Your task to perform on an android device: uninstall "Google Photos" Image 0: 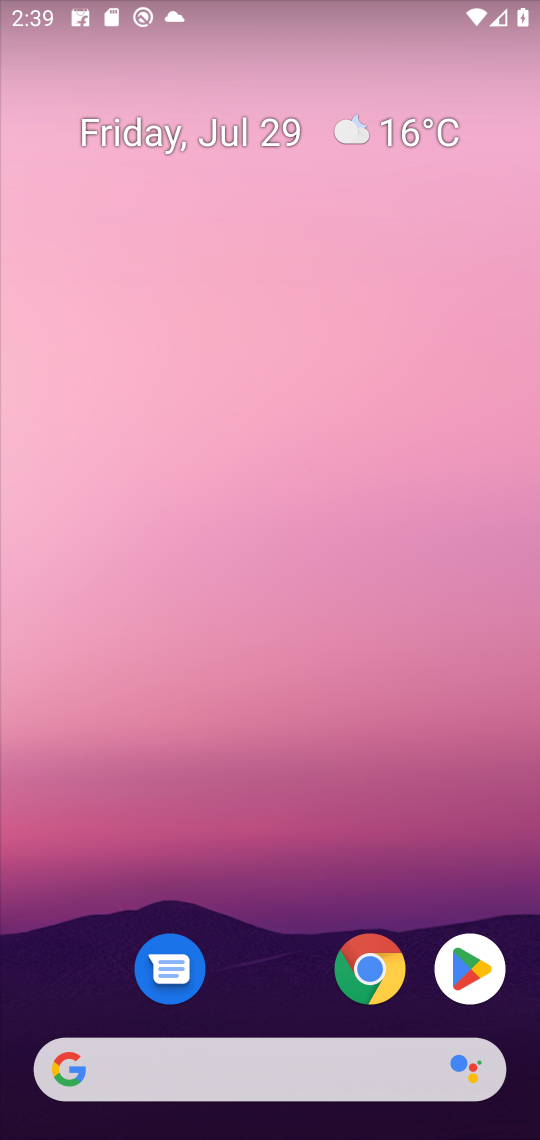
Step 0: press home button
Your task to perform on an android device: uninstall "Google Photos" Image 1: 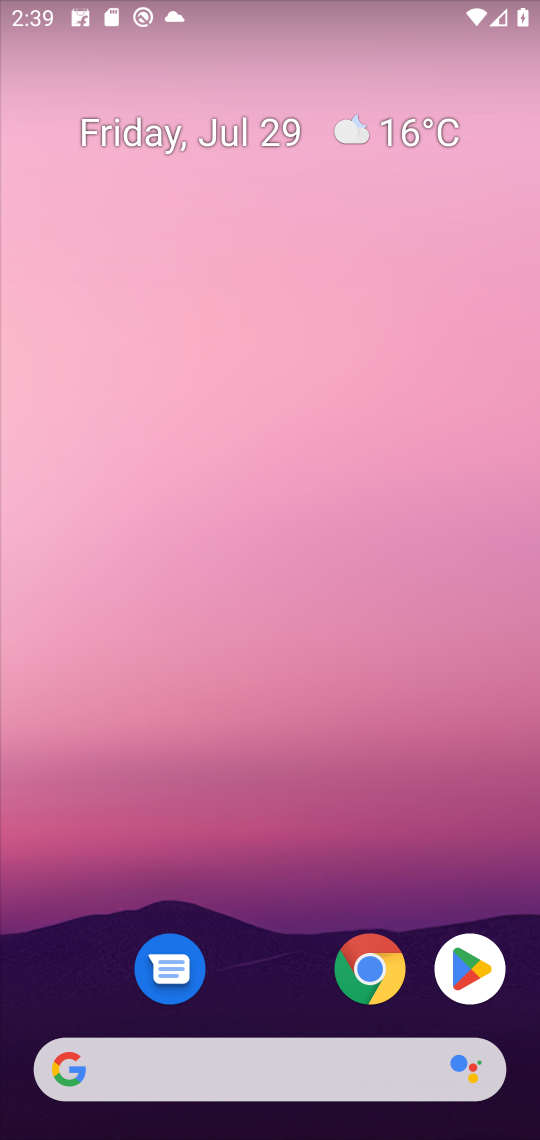
Step 1: click (468, 976)
Your task to perform on an android device: uninstall "Google Photos" Image 2: 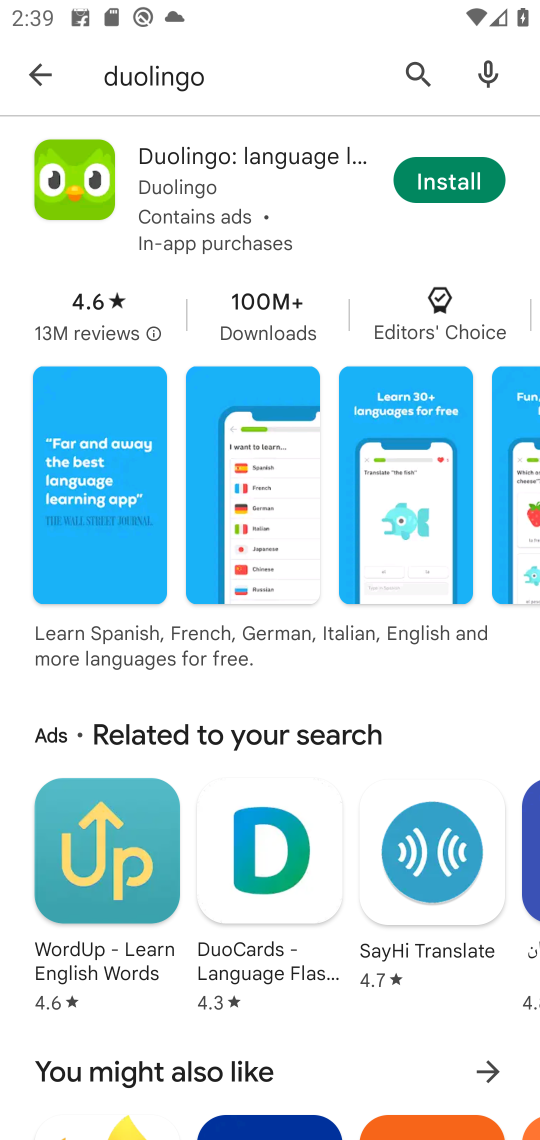
Step 2: click (403, 61)
Your task to perform on an android device: uninstall "Google Photos" Image 3: 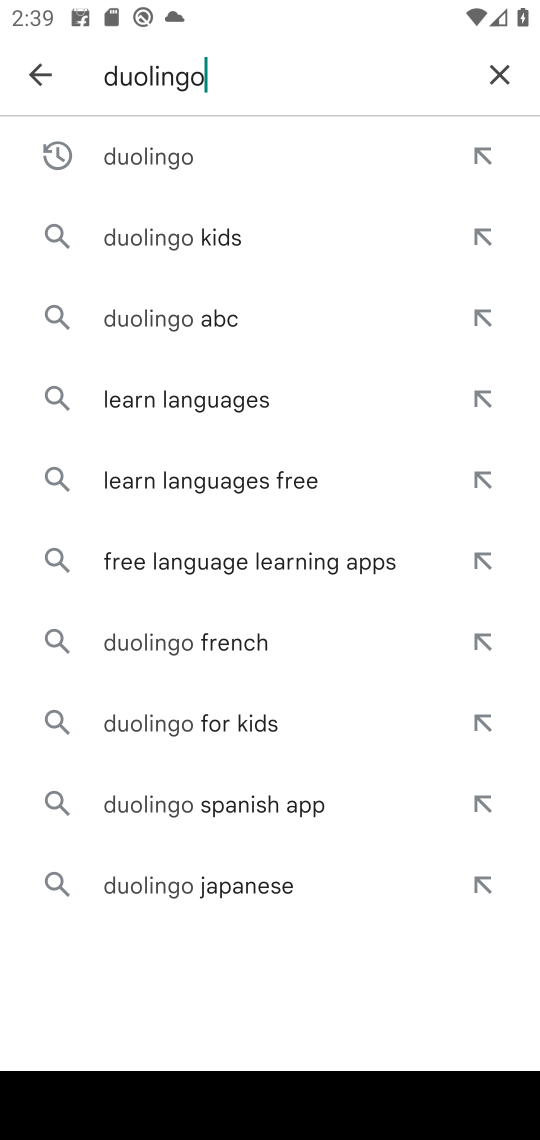
Step 3: click (496, 71)
Your task to perform on an android device: uninstall "Google Photos" Image 4: 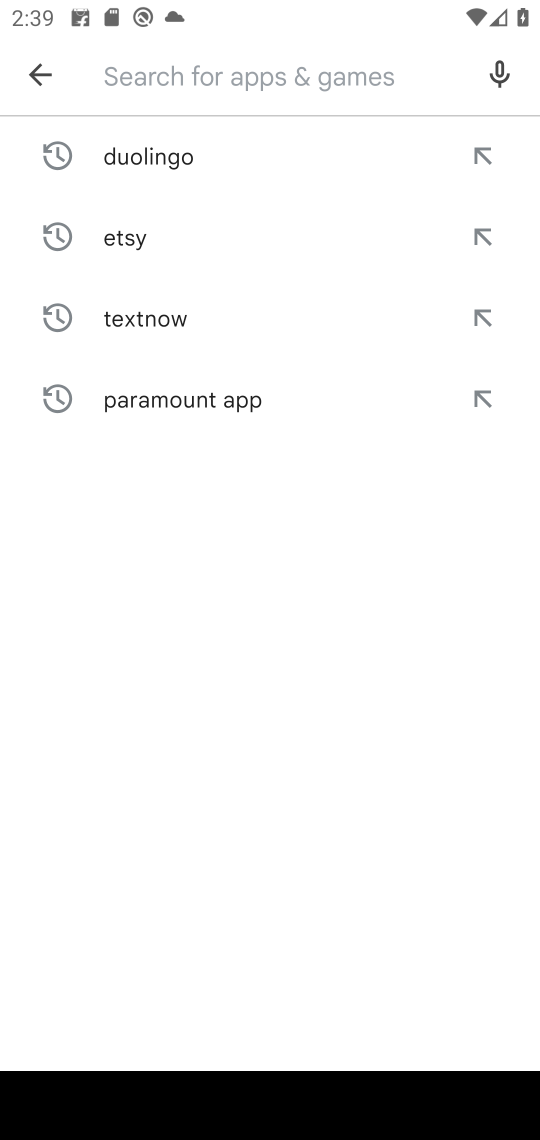
Step 4: type "googlew photo"
Your task to perform on an android device: uninstall "Google Photos" Image 5: 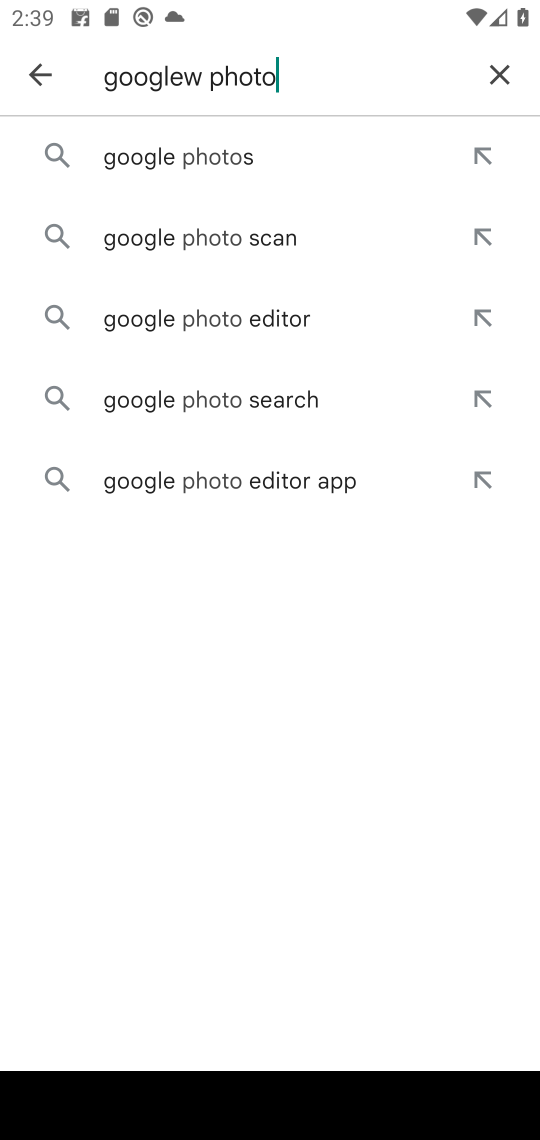
Step 5: click (203, 70)
Your task to perform on an android device: uninstall "Google Photos" Image 6: 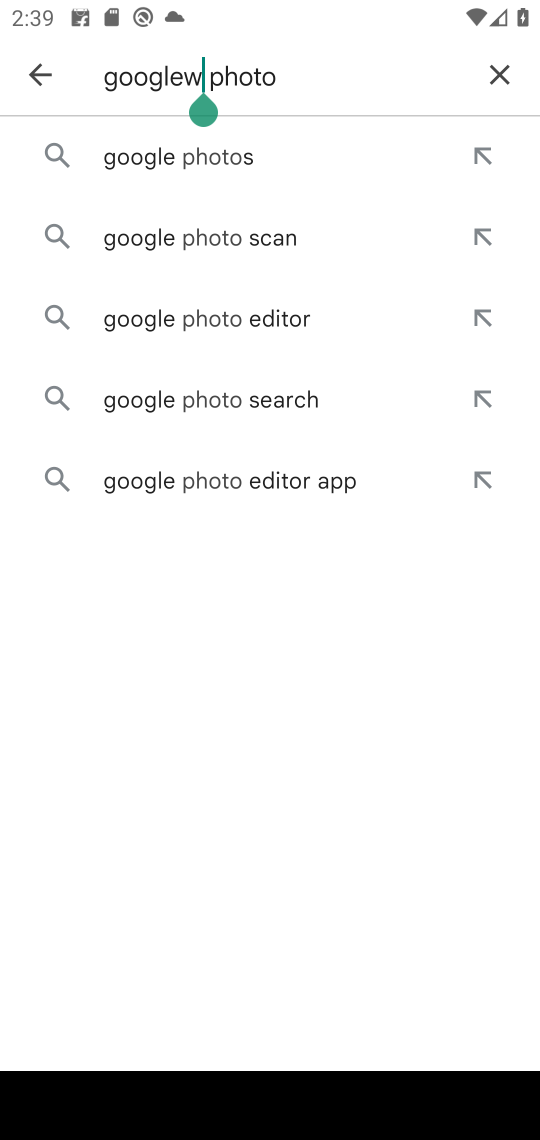
Step 6: click (261, 162)
Your task to perform on an android device: uninstall "Google Photos" Image 7: 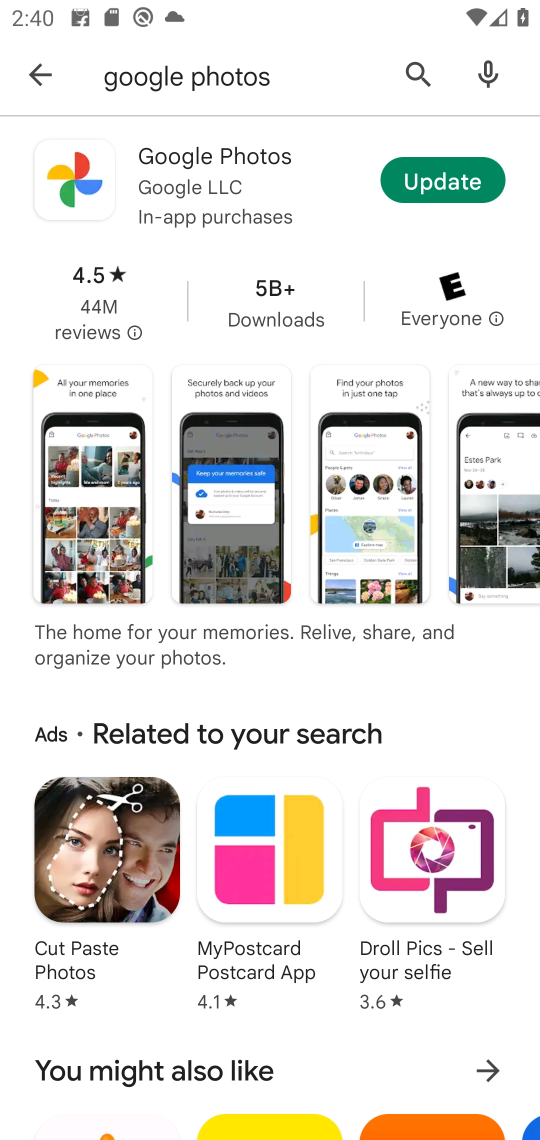
Step 7: click (109, 171)
Your task to perform on an android device: uninstall "Google Photos" Image 8: 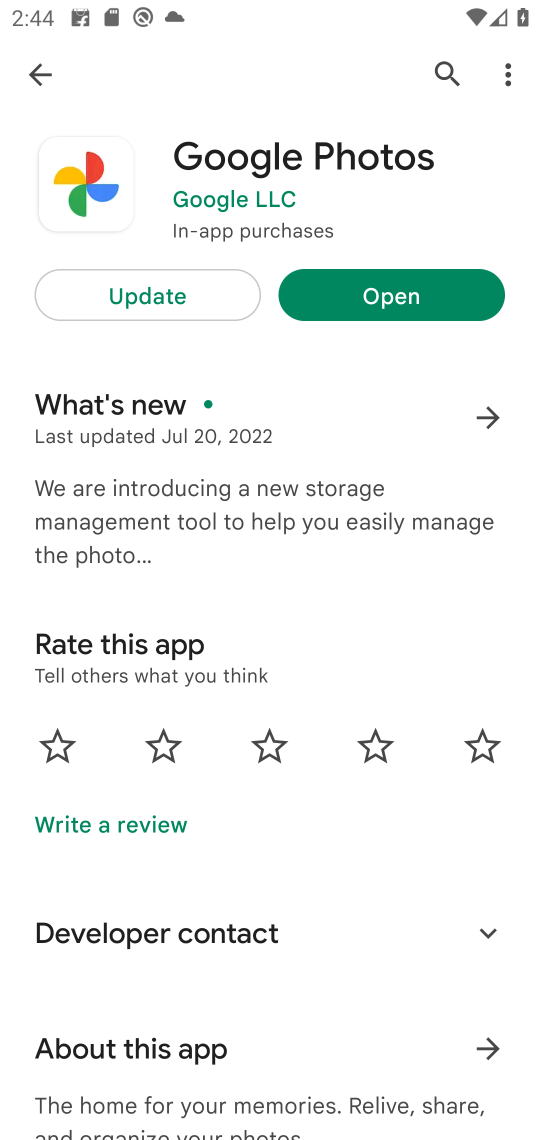
Step 8: task complete